Your task to perform on an android device: Search for Mexican restaurants on Maps Image 0: 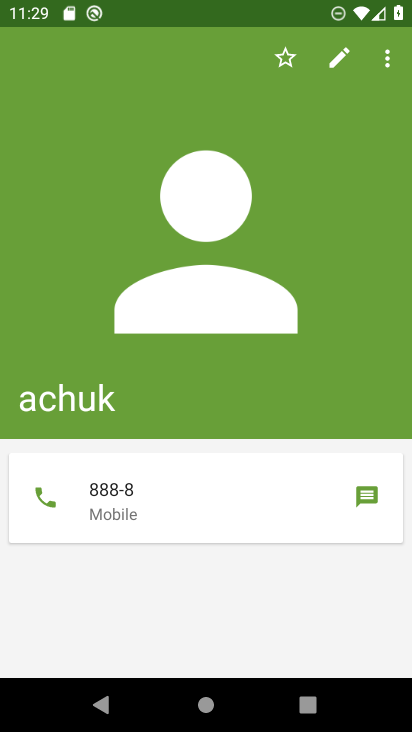
Step 0: press home button
Your task to perform on an android device: Search for Mexican restaurants on Maps Image 1: 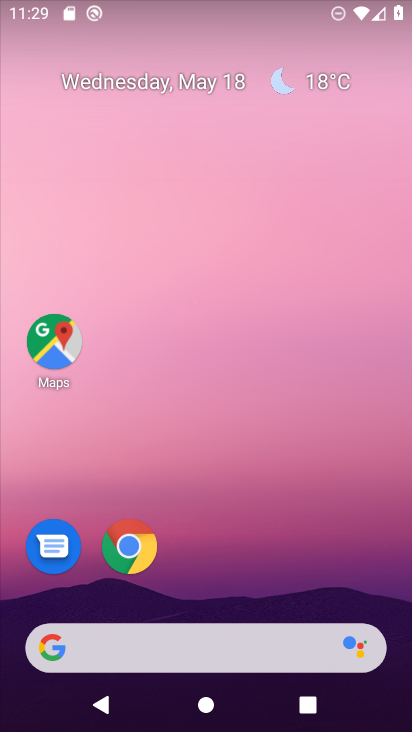
Step 1: drag from (223, 719) to (224, 249)
Your task to perform on an android device: Search for Mexican restaurants on Maps Image 2: 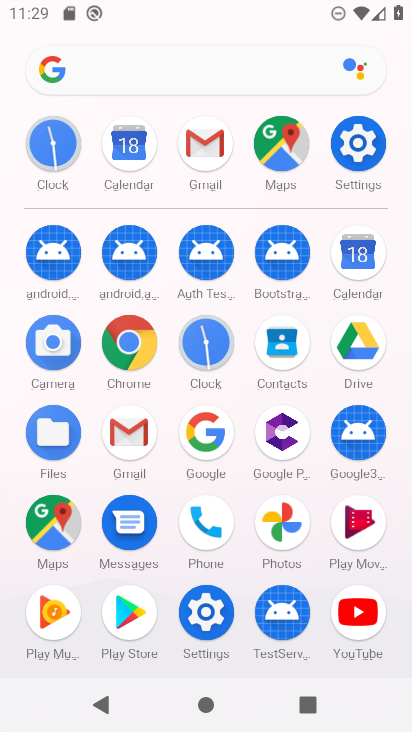
Step 2: click (57, 512)
Your task to perform on an android device: Search for Mexican restaurants on Maps Image 3: 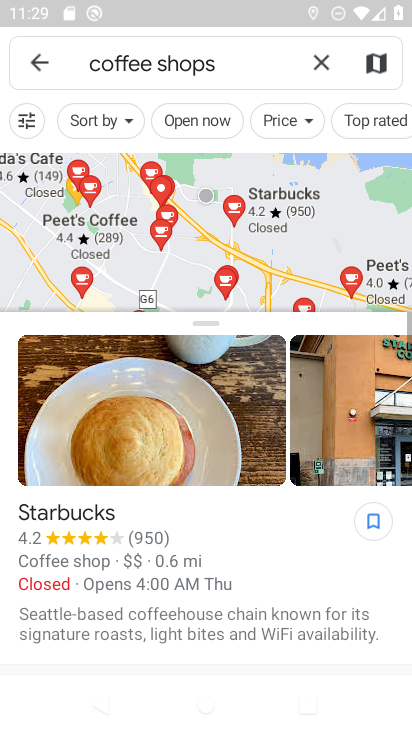
Step 3: click (323, 61)
Your task to perform on an android device: Search for Mexican restaurants on Maps Image 4: 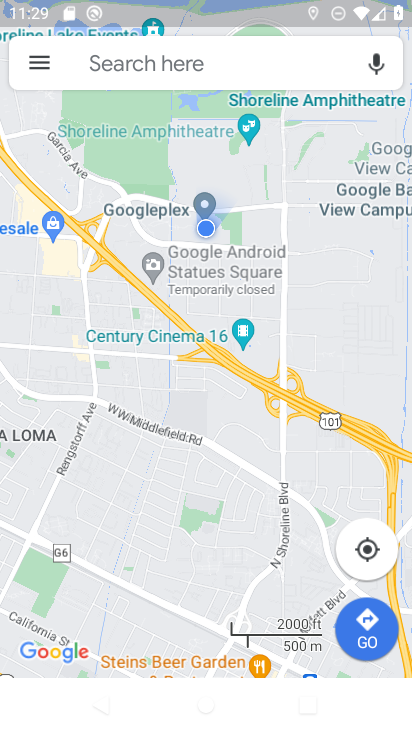
Step 4: click (175, 57)
Your task to perform on an android device: Search for Mexican restaurants on Maps Image 5: 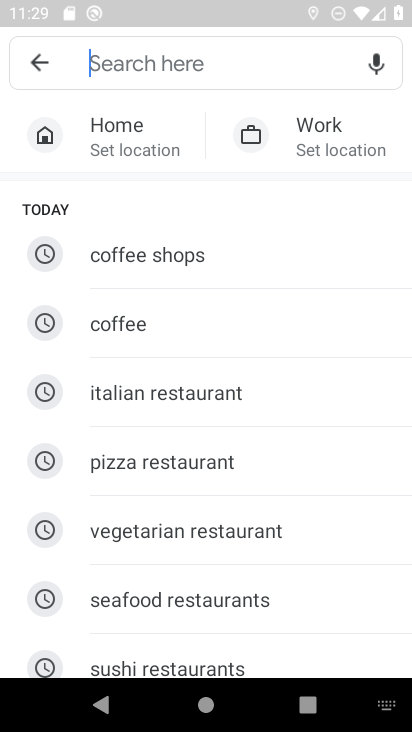
Step 5: type "Mexican restaurants"
Your task to perform on an android device: Search for Mexican restaurants on Maps Image 6: 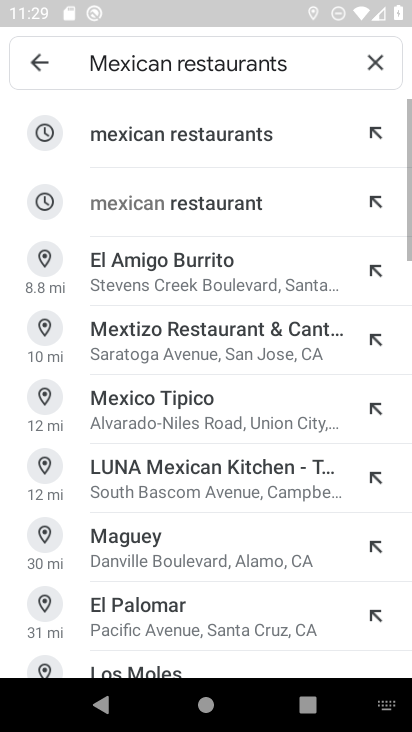
Step 6: click (161, 133)
Your task to perform on an android device: Search for Mexican restaurants on Maps Image 7: 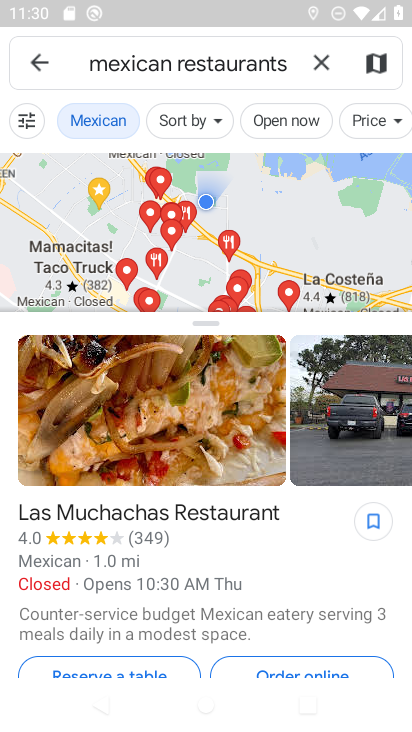
Step 7: task complete